Your task to perform on an android device: open sync settings in chrome Image 0: 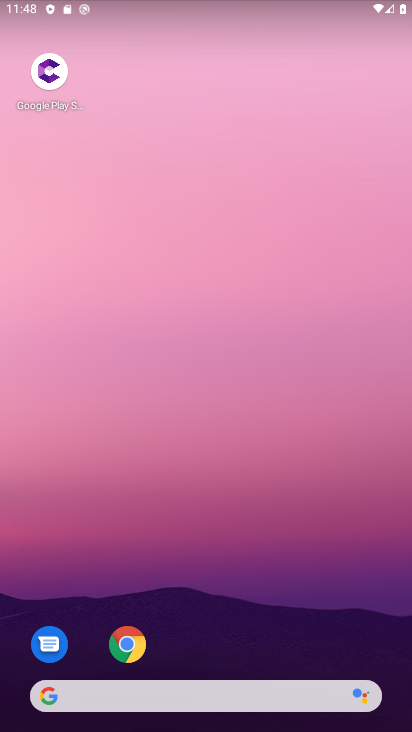
Step 0: drag from (255, 623) to (275, 173)
Your task to perform on an android device: open sync settings in chrome Image 1: 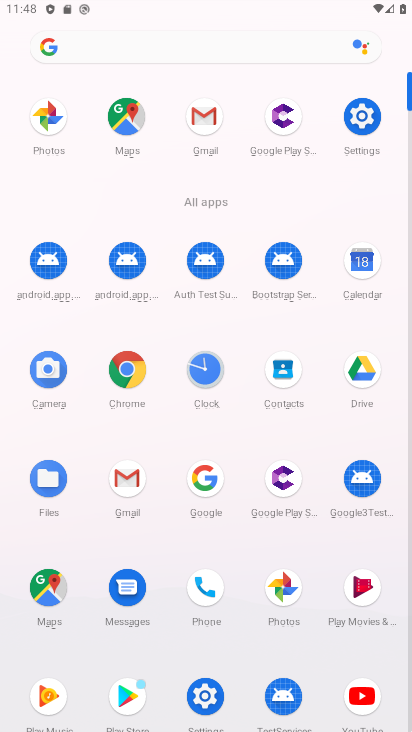
Step 1: click (129, 386)
Your task to perform on an android device: open sync settings in chrome Image 2: 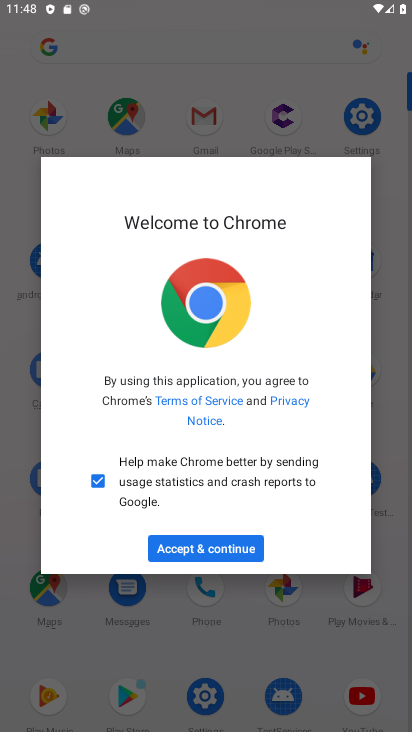
Step 2: click (182, 559)
Your task to perform on an android device: open sync settings in chrome Image 3: 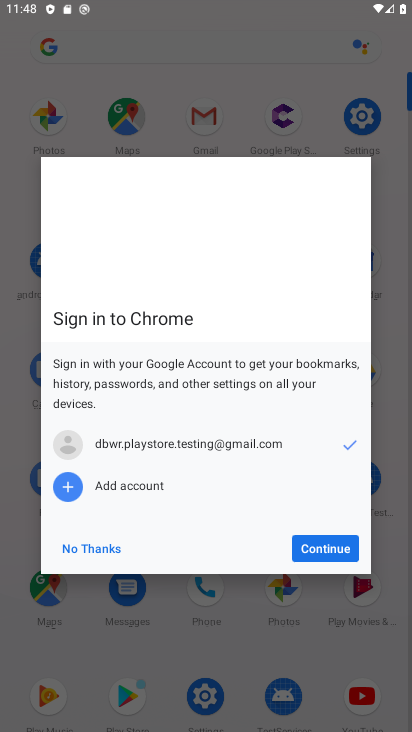
Step 3: click (344, 546)
Your task to perform on an android device: open sync settings in chrome Image 4: 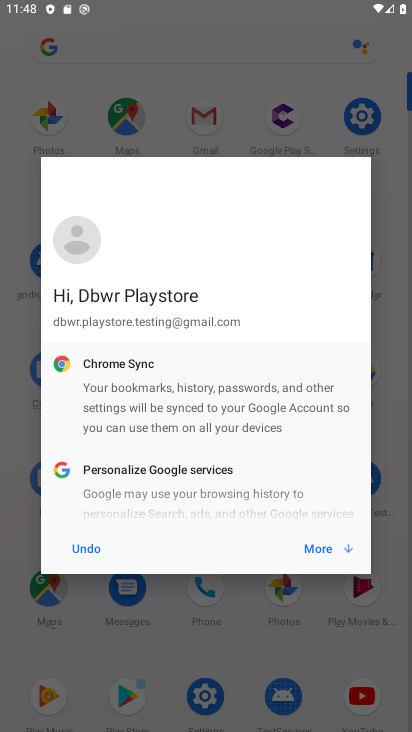
Step 4: click (330, 554)
Your task to perform on an android device: open sync settings in chrome Image 5: 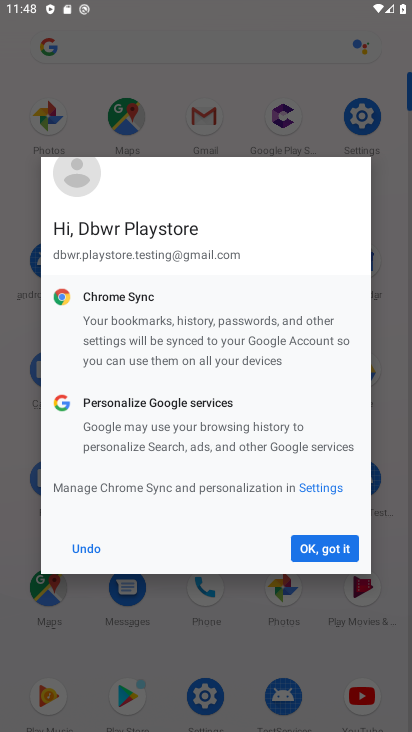
Step 5: click (330, 554)
Your task to perform on an android device: open sync settings in chrome Image 6: 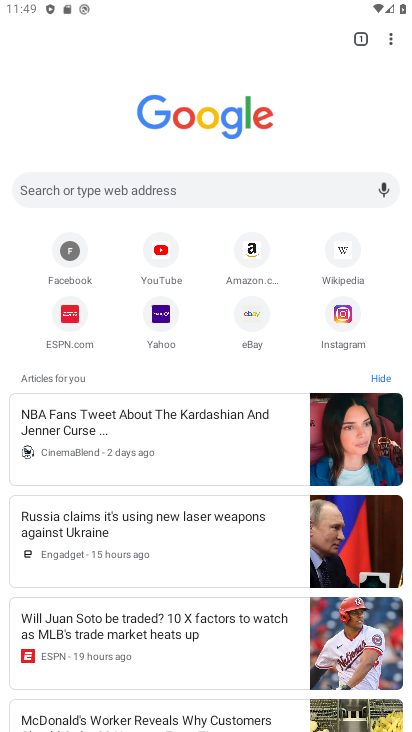
Step 6: drag from (389, 42) to (265, 333)
Your task to perform on an android device: open sync settings in chrome Image 7: 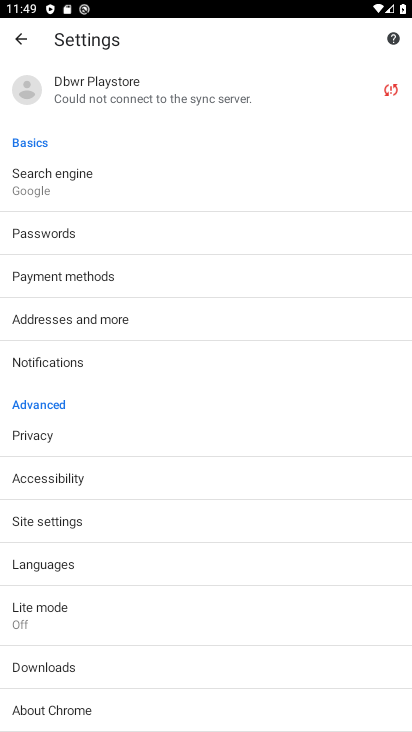
Step 7: drag from (215, 644) to (258, 350)
Your task to perform on an android device: open sync settings in chrome Image 8: 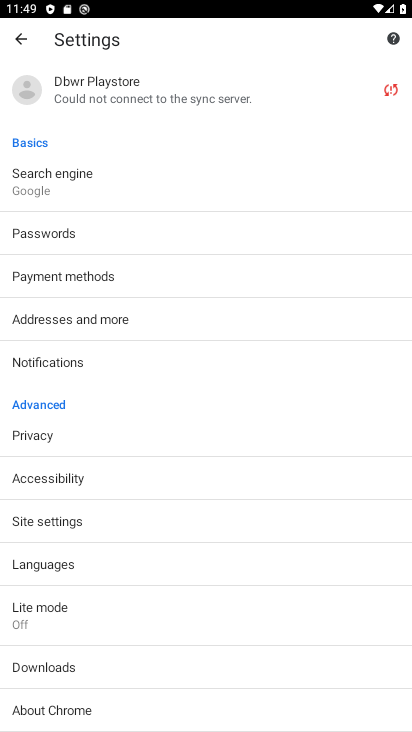
Step 8: click (109, 521)
Your task to perform on an android device: open sync settings in chrome Image 9: 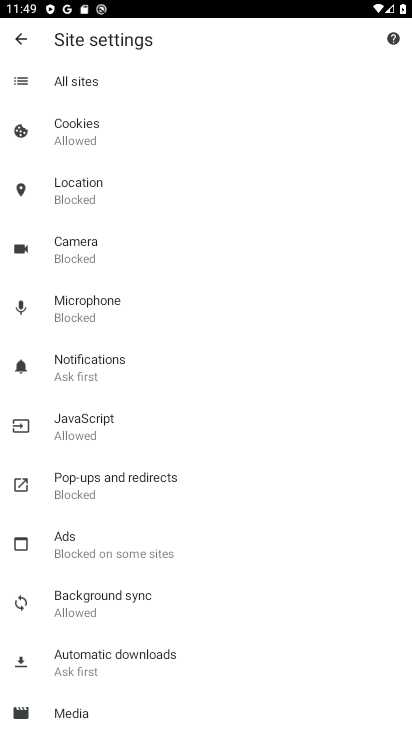
Step 9: click (111, 609)
Your task to perform on an android device: open sync settings in chrome Image 10: 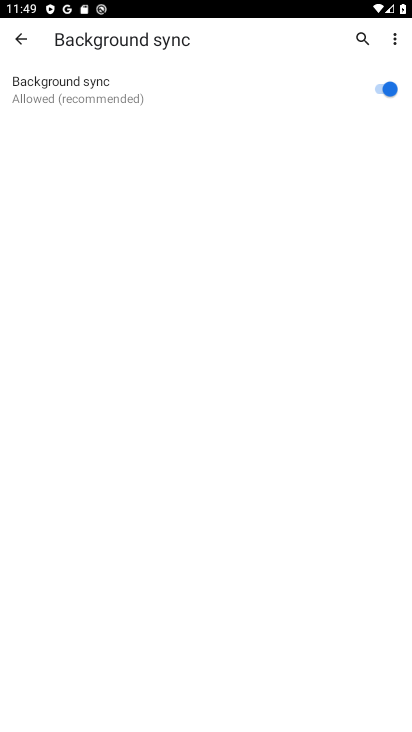
Step 10: task complete